Your task to perform on an android device: toggle priority inbox in the gmail app Image 0: 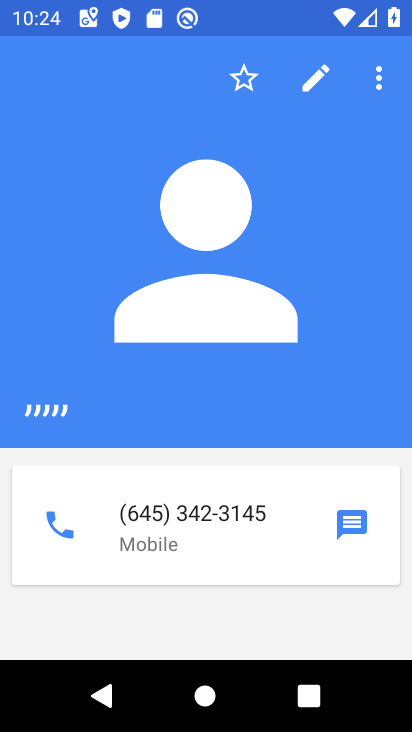
Step 0: press home button
Your task to perform on an android device: toggle priority inbox in the gmail app Image 1: 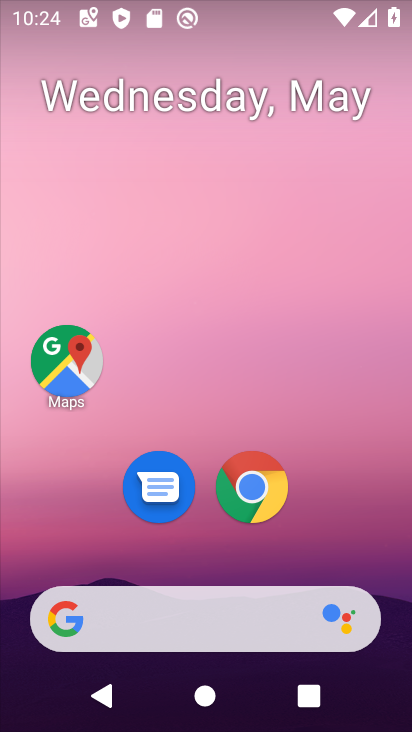
Step 1: drag from (210, 563) to (270, 2)
Your task to perform on an android device: toggle priority inbox in the gmail app Image 2: 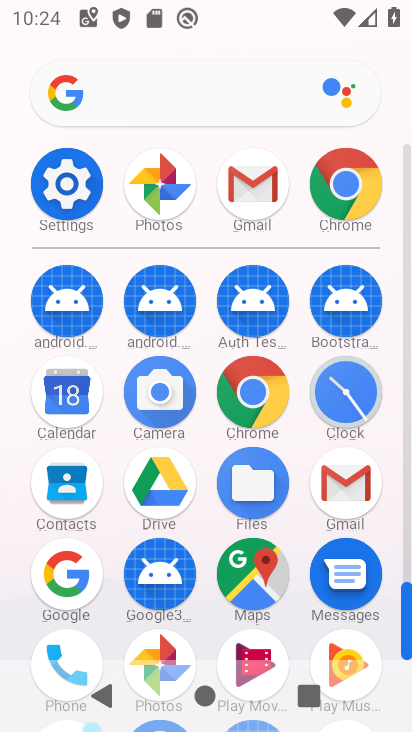
Step 2: click (341, 501)
Your task to perform on an android device: toggle priority inbox in the gmail app Image 3: 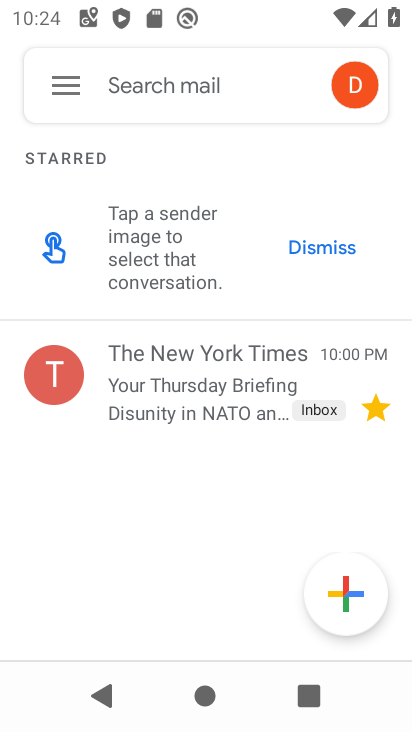
Step 3: click (63, 84)
Your task to perform on an android device: toggle priority inbox in the gmail app Image 4: 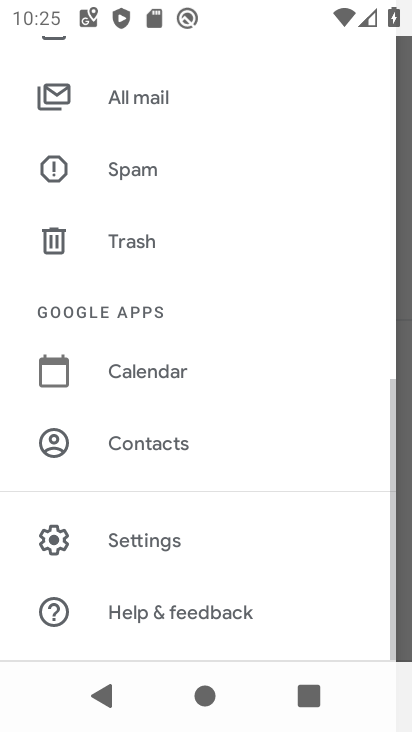
Step 4: click (164, 548)
Your task to perform on an android device: toggle priority inbox in the gmail app Image 5: 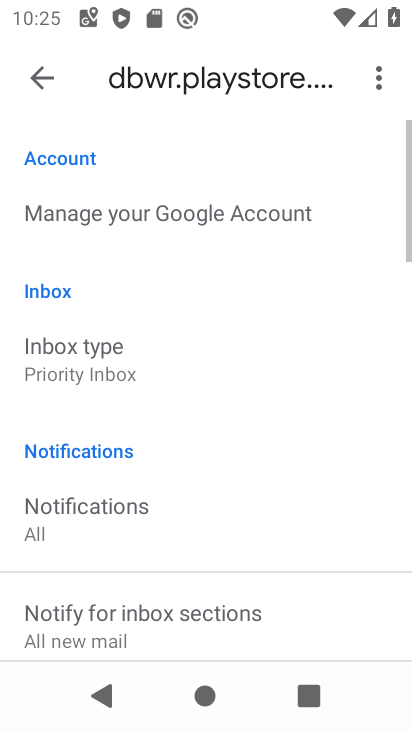
Step 5: drag from (163, 461) to (103, 207)
Your task to perform on an android device: toggle priority inbox in the gmail app Image 6: 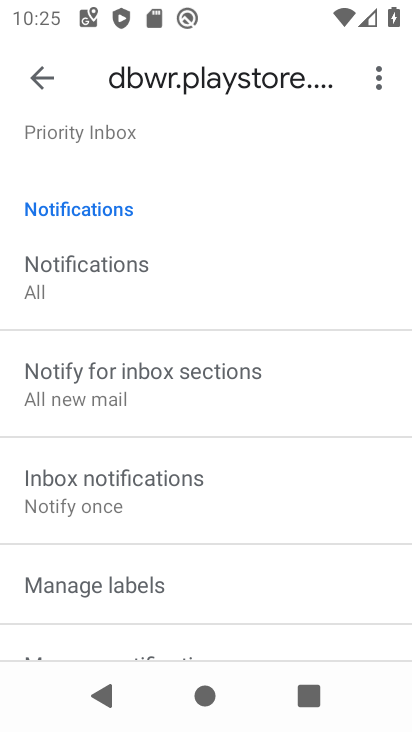
Step 6: drag from (94, 213) to (111, 417)
Your task to perform on an android device: toggle priority inbox in the gmail app Image 7: 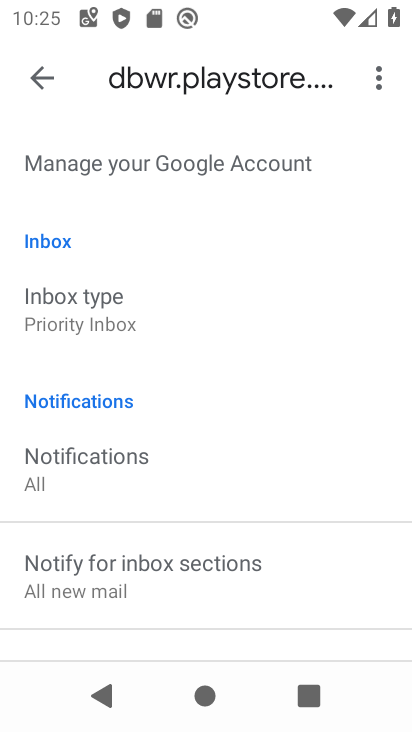
Step 7: click (111, 291)
Your task to perform on an android device: toggle priority inbox in the gmail app Image 8: 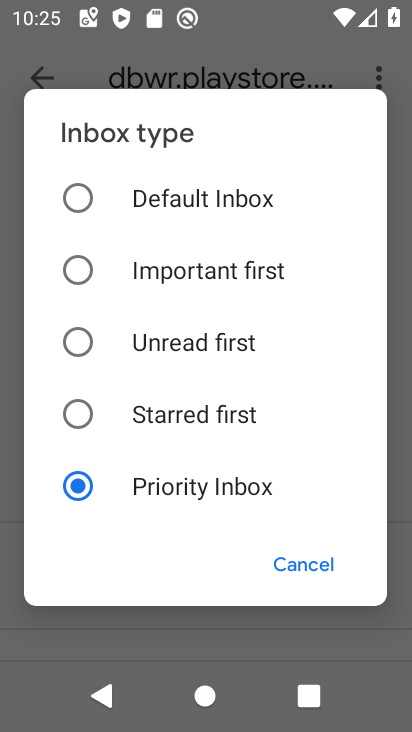
Step 8: click (168, 272)
Your task to perform on an android device: toggle priority inbox in the gmail app Image 9: 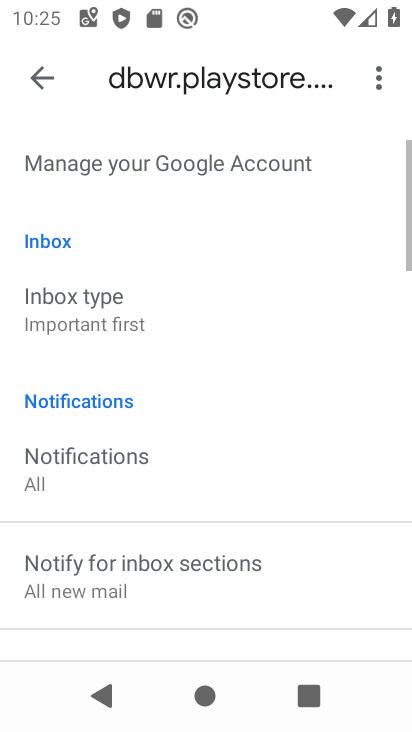
Step 9: task complete